Your task to perform on an android device: What's the weather going to be this weekend? Image 0: 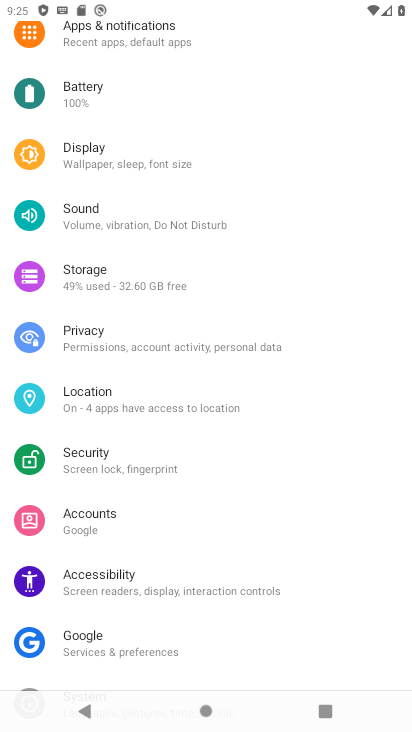
Step 0: press home button
Your task to perform on an android device: What's the weather going to be this weekend? Image 1: 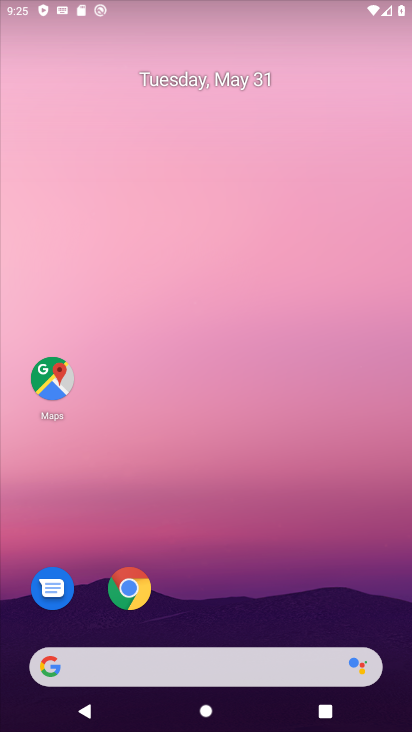
Step 1: click (144, 660)
Your task to perform on an android device: What's the weather going to be this weekend? Image 2: 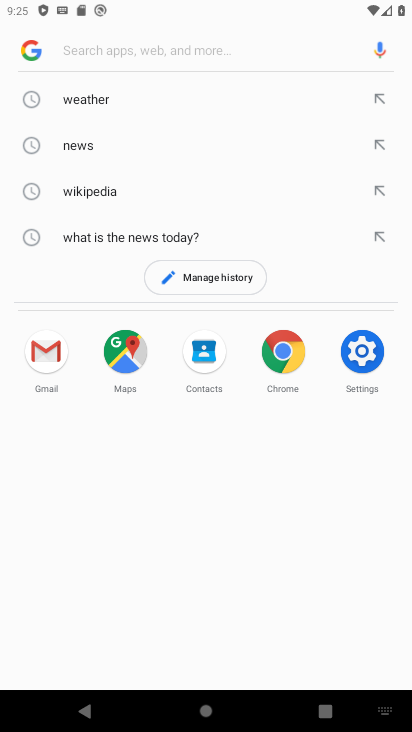
Step 2: type "What's the weather going to be this weekend?"
Your task to perform on an android device: What's the weather going to be this weekend? Image 3: 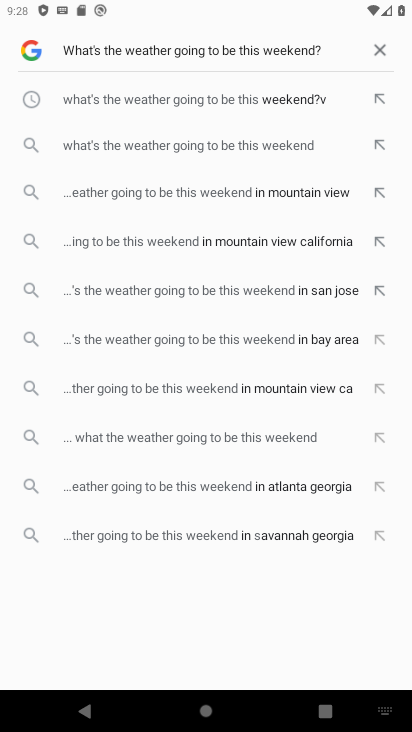
Step 3: click (276, 92)
Your task to perform on an android device: What's the weather going to be this weekend? Image 4: 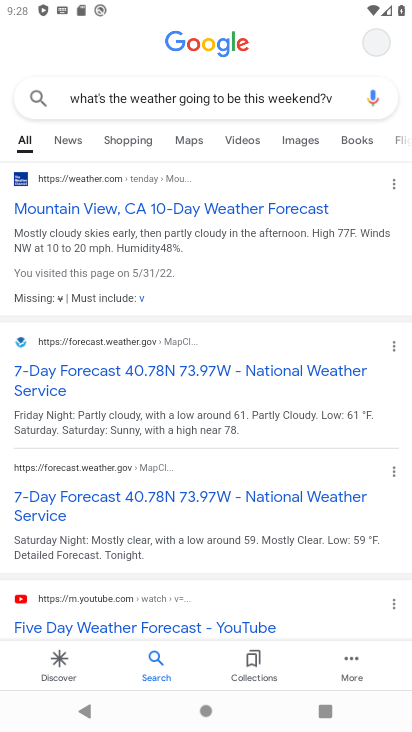
Step 4: task complete